Your task to perform on an android device: Do I have any events this weekend? Image 0: 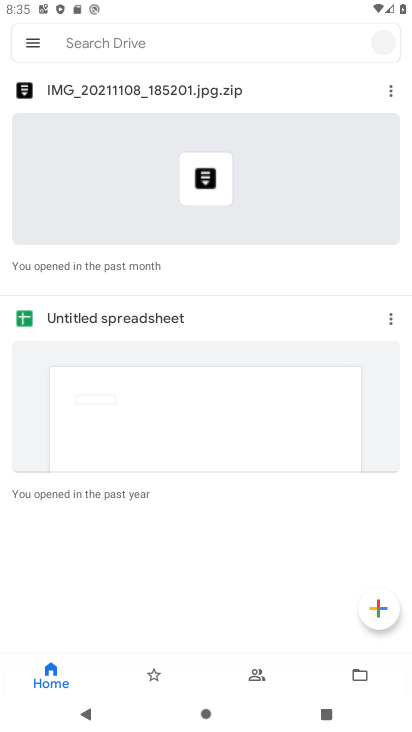
Step 0: press home button
Your task to perform on an android device: Do I have any events this weekend? Image 1: 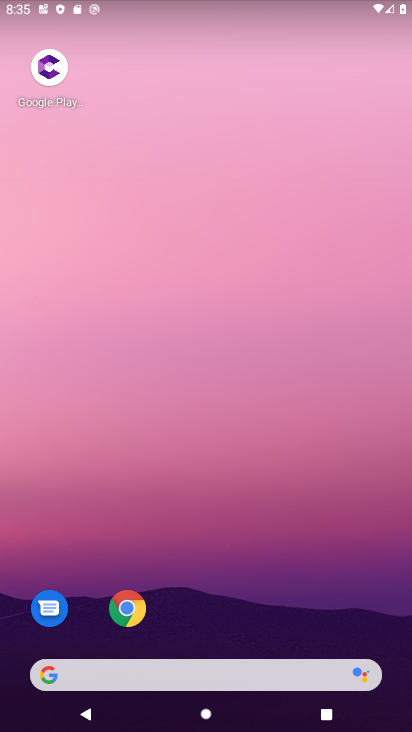
Step 1: drag from (237, 603) to (236, 210)
Your task to perform on an android device: Do I have any events this weekend? Image 2: 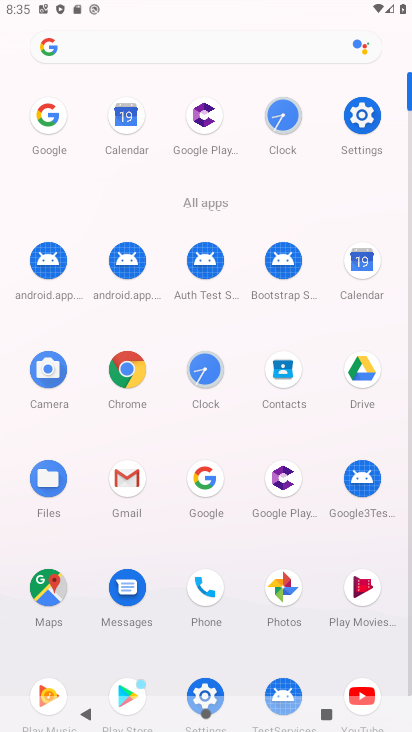
Step 2: click (357, 264)
Your task to perform on an android device: Do I have any events this weekend? Image 3: 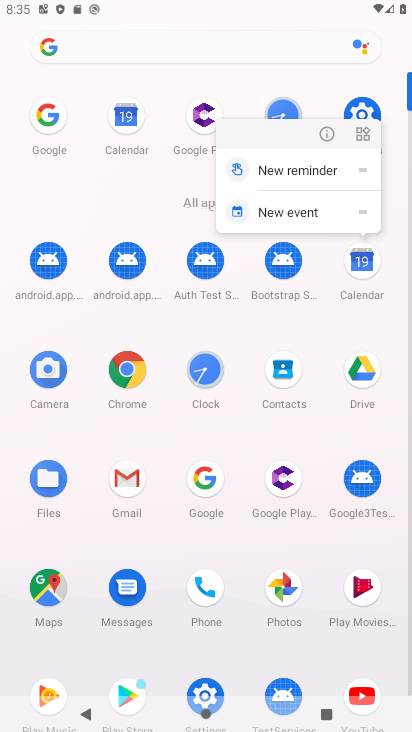
Step 3: click (365, 261)
Your task to perform on an android device: Do I have any events this weekend? Image 4: 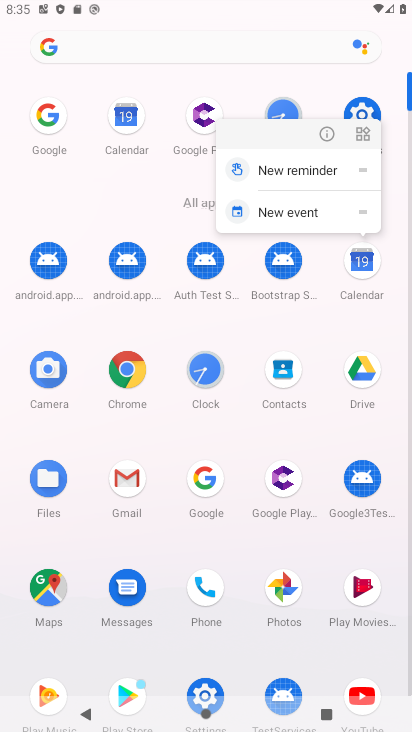
Step 4: click (365, 261)
Your task to perform on an android device: Do I have any events this weekend? Image 5: 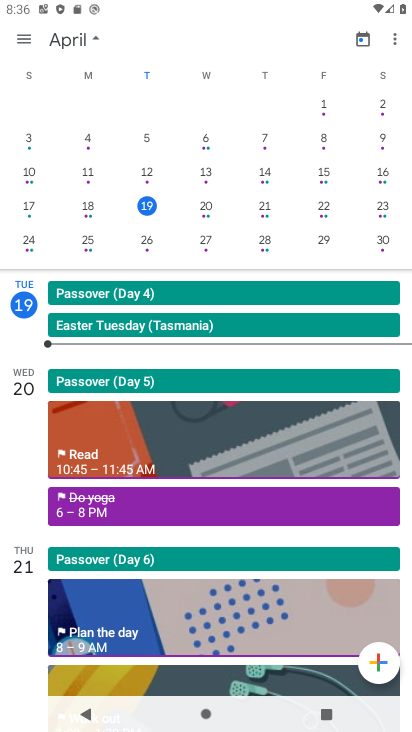
Step 5: click (206, 208)
Your task to perform on an android device: Do I have any events this weekend? Image 6: 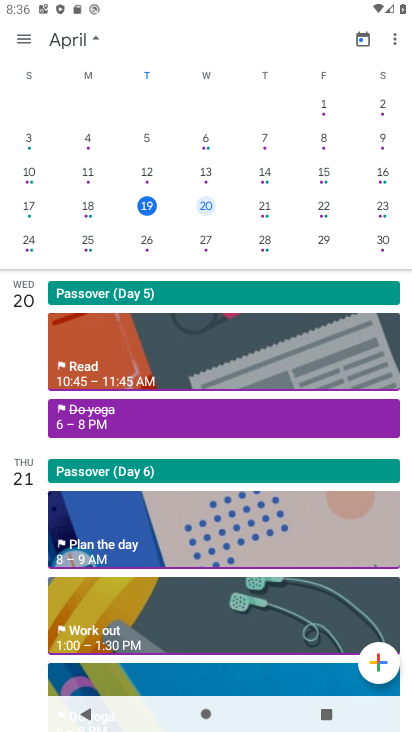
Step 6: click (206, 208)
Your task to perform on an android device: Do I have any events this weekend? Image 7: 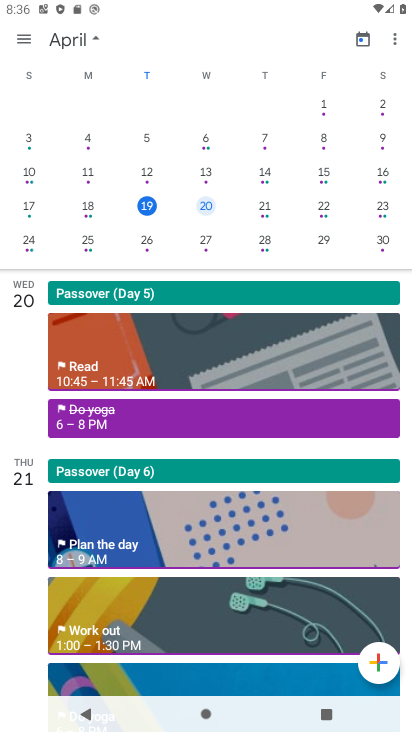
Step 7: task complete